Your task to perform on an android device: Go to notification settings Image 0: 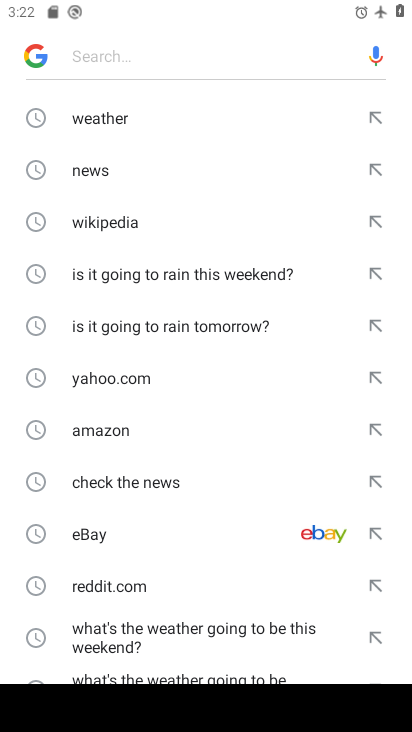
Step 0: press home button
Your task to perform on an android device: Go to notification settings Image 1: 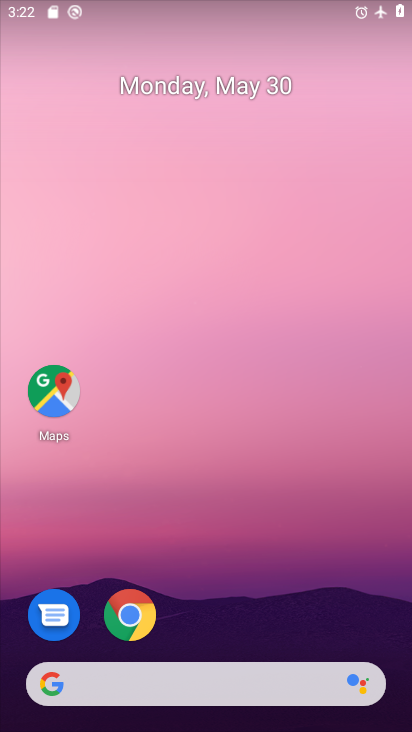
Step 1: drag from (212, 561) to (225, 11)
Your task to perform on an android device: Go to notification settings Image 2: 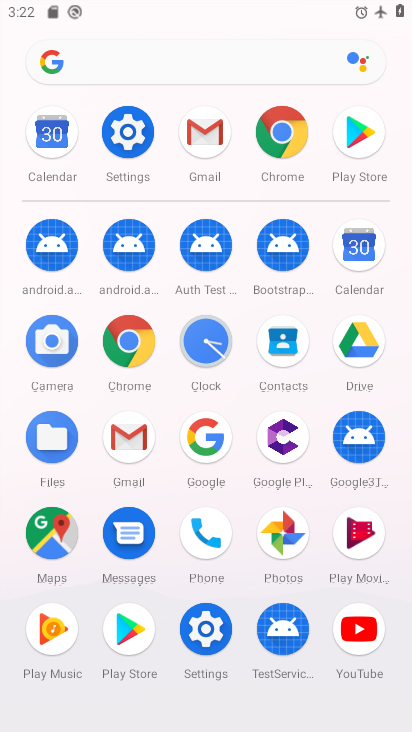
Step 2: click (140, 121)
Your task to perform on an android device: Go to notification settings Image 3: 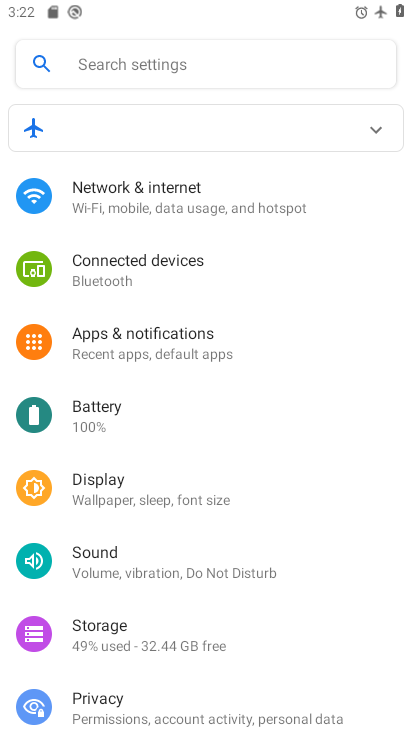
Step 3: click (142, 337)
Your task to perform on an android device: Go to notification settings Image 4: 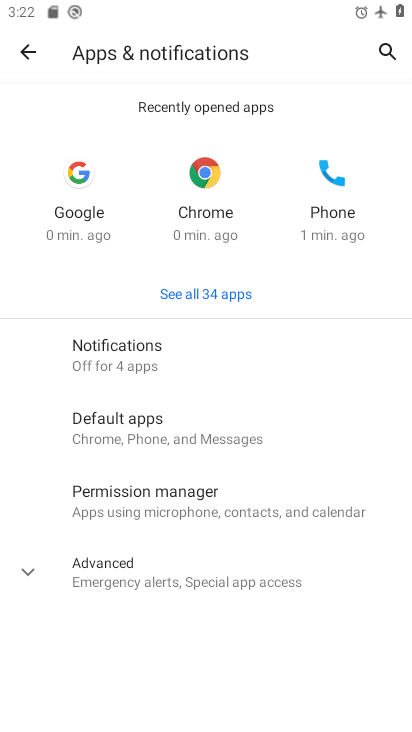
Step 4: click (158, 368)
Your task to perform on an android device: Go to notification settings Image 5: 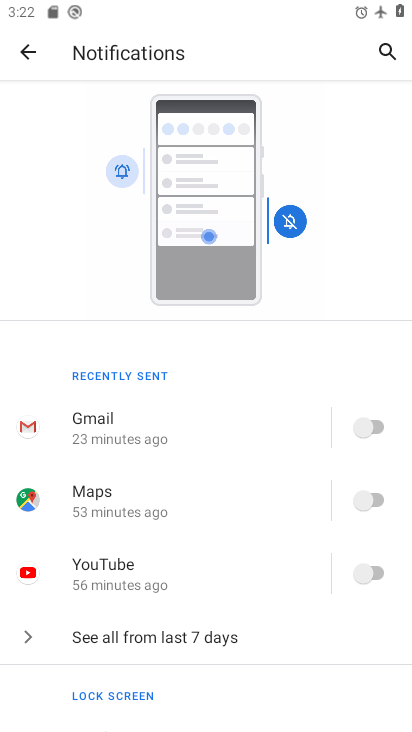
Step 5: task complete